Your task to perform on an android device: toggle show notifications on the lock screen Image 0: 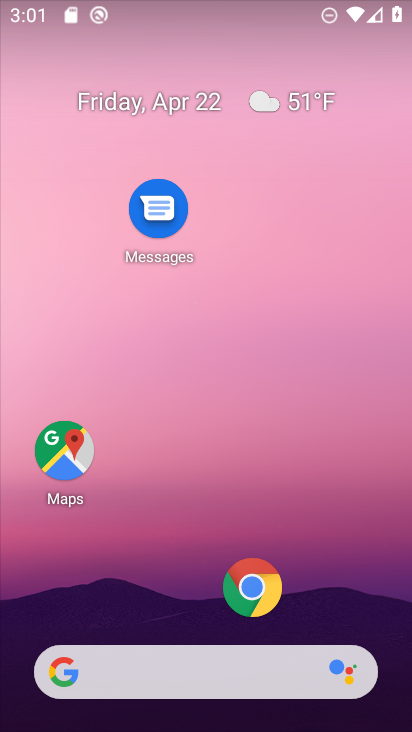
Step 0: drag from (200, 618) to (256, 140)
Your task to perform on an android device: toggle show notifications on the lock screen Image 1: 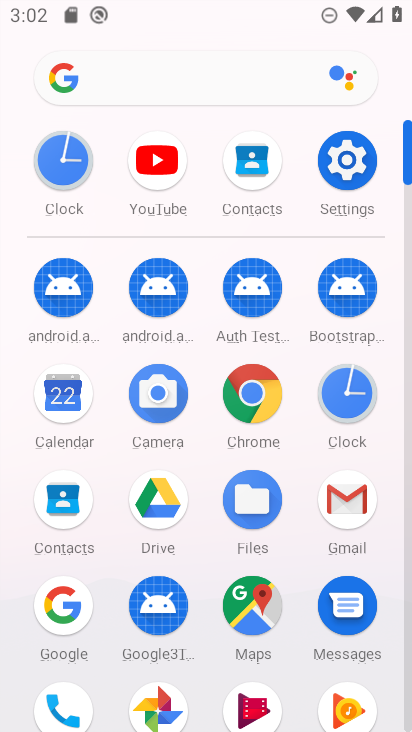
Step 1: click (330, 153)
Your task to perform on an android device: toggle show notifications on the lock screen Image 2: 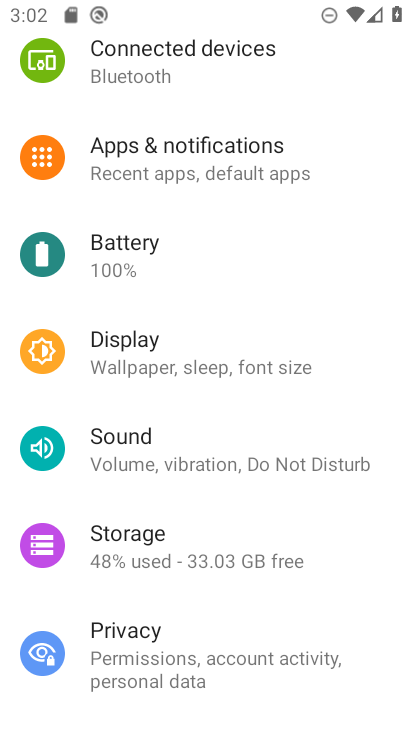
Step 2: click (247, 150)
Your task to perform on an android device: toggle show notifications on the lock screen Image 3: 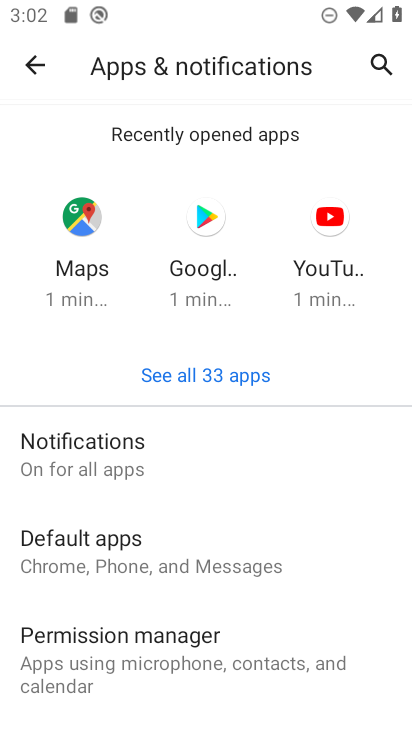
Step 3: click (189, 454)
Your task to perform on an android device: toggle show notifications on the lock screen Image 4: 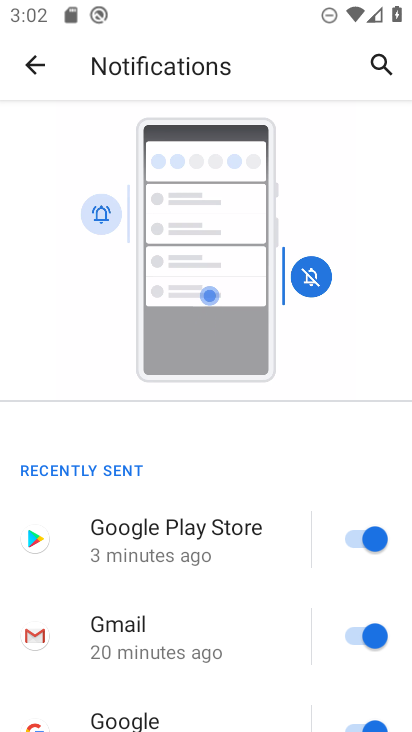
Step 4: drag from (221, 626) to (257, 199)
Your task to perform on an android device: toggle show notifications on the lock screen Image 5: 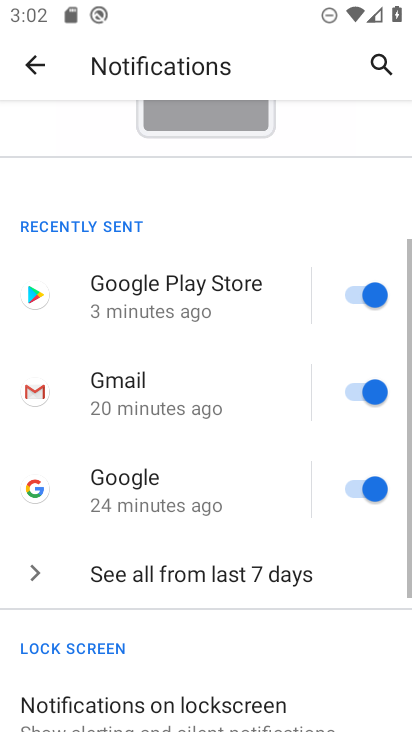
Step 5: drag from (262, 582) to (269, 365)
Your task to perform on an android device: toggle show notifications on the lock screen Image 6: 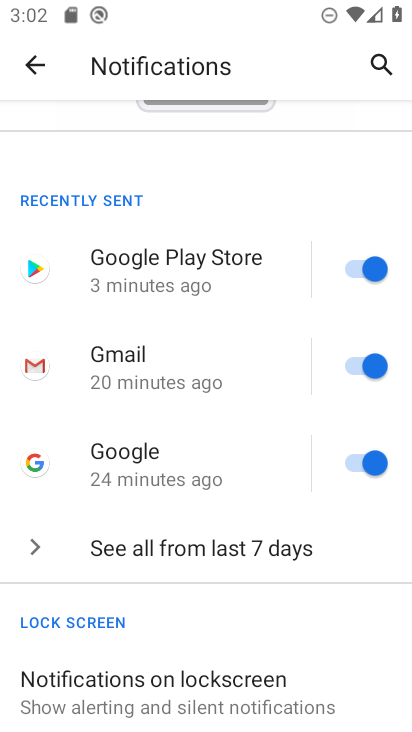
Step 6: click (264, 689)
Your task to perform on an android device: toggle show notifications on the lock screen Image 7: 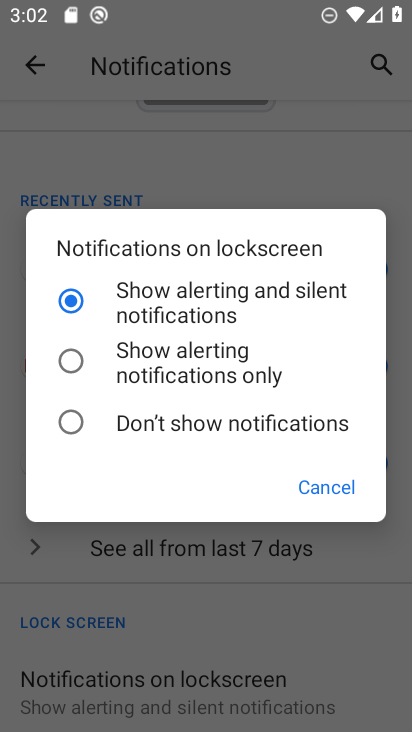
Step 7: click (178, 419)
Your task to perform on an android device: toggle show notifications on the lock screen Image 8: 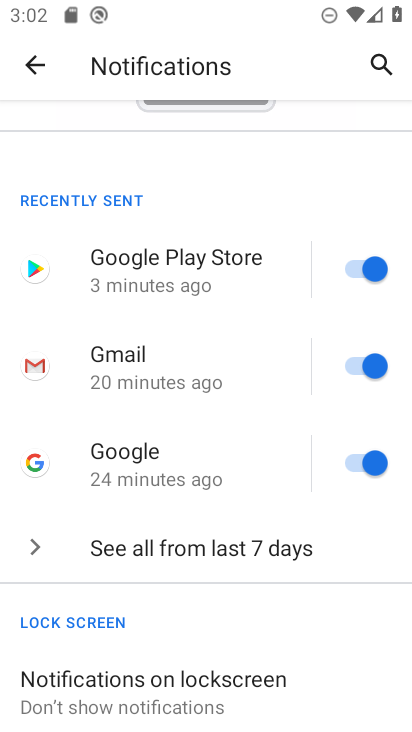
Step 8: task complete